Your task to perform on an android device: turn pop-ups on in chrome Image 0: 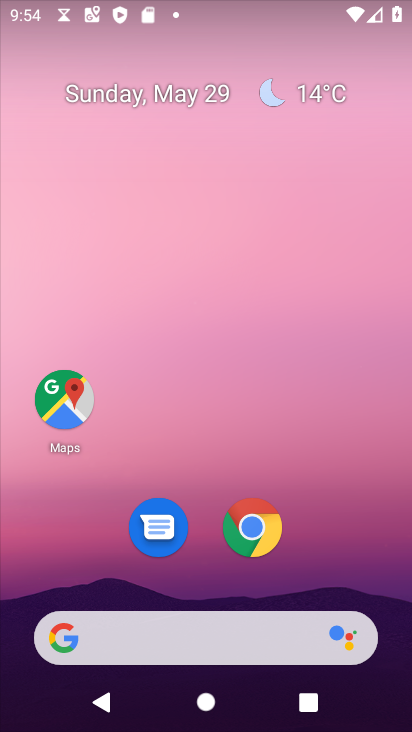
Step 0: press home button
Your task to perform on an android device: turn pop-ups on in chrome Image 1: 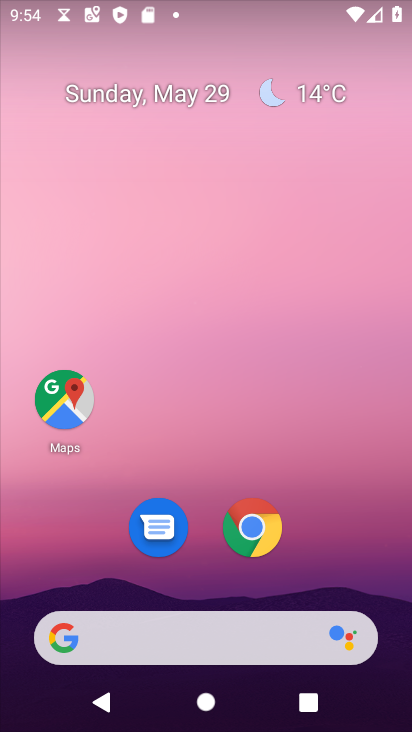
Step 1: click (257, 539)
Your task to perform on an android device: turn pop-ups on in chrome Image 2: 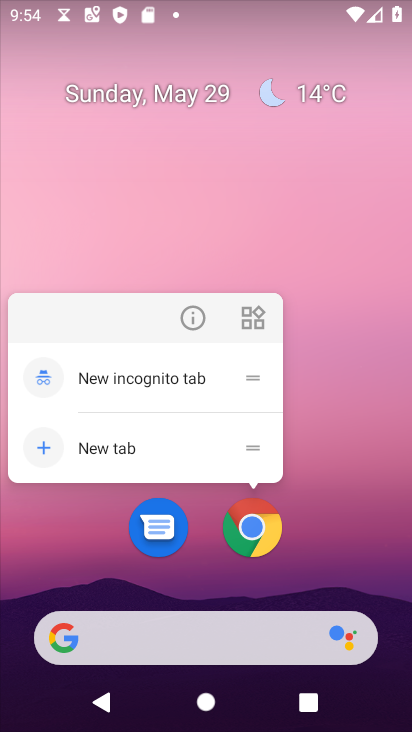
Step 2: click (258, 528)
Your task to perform on an android device: turn pop-ups on in chrome Image 3: 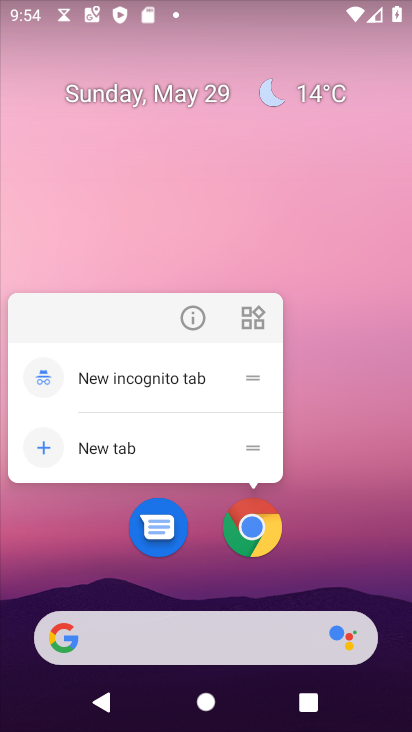
Step 3: click (254, 535)
Your task to perform on an android device: turn pop-ups on in chrome Image 4: 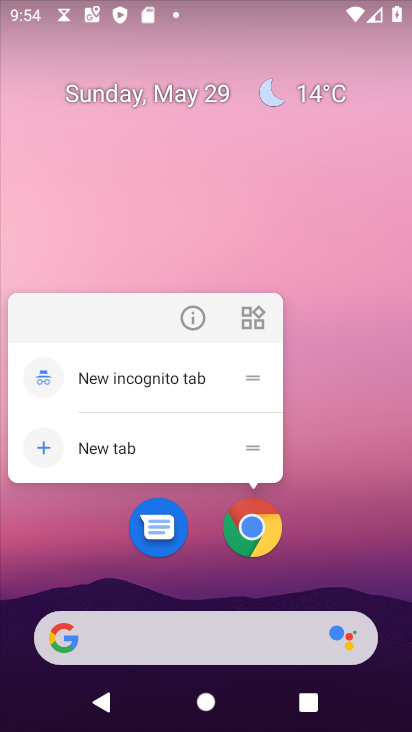
Step 4: click (254, 535)
Your task to perform on an android device: turn pop-ups on in chrome Image 5: 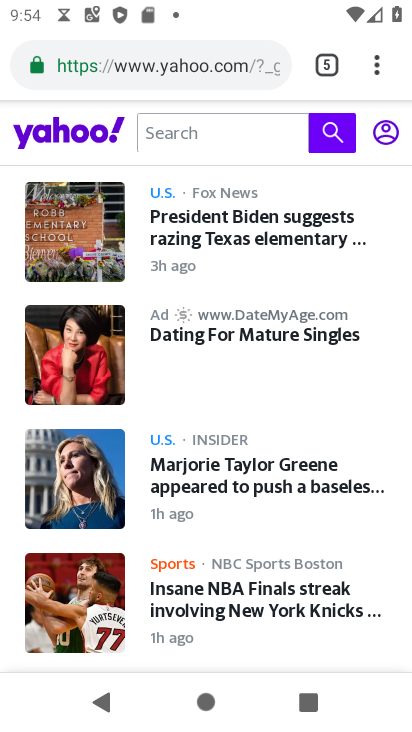
Step 5: drag from (373, 66) to (184, 582)
Your task to perform on an android device: turn pop-ups on in chrome Image 6: 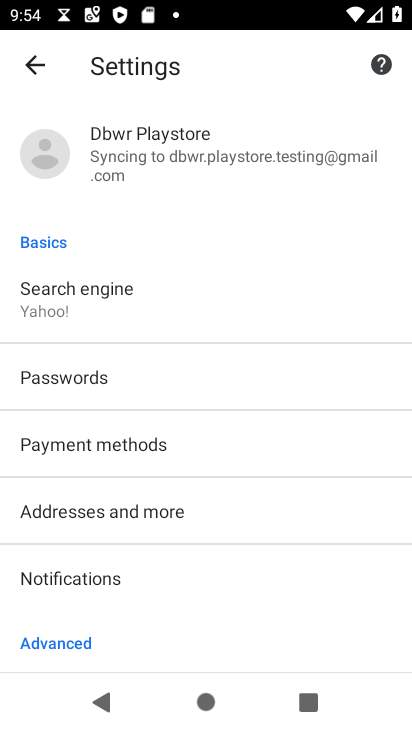
Step 6: drag from (171, 591) to (271, 238)
Your task to perform on an android device: turn pop-ups on in chrome Image 7: 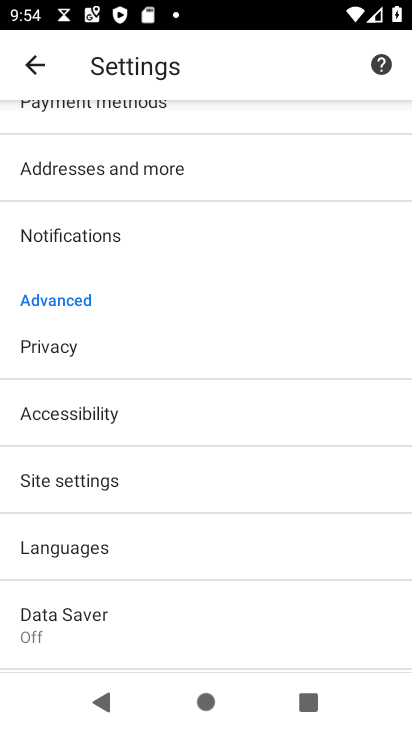
Step 7: click (87, 482)
Your task to perform on an android device: turn pop-ups on in chrome Image 8: 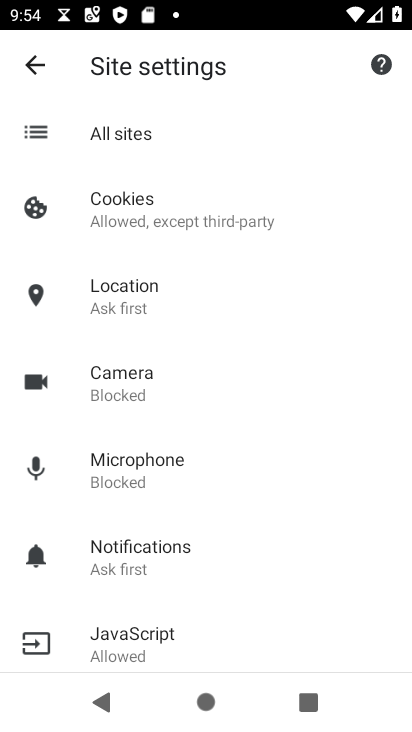
Step 8: drag from (178, 597) to (186, 253)
Your task to perform on an android device: turn pop-ups on in chrome Image 9: 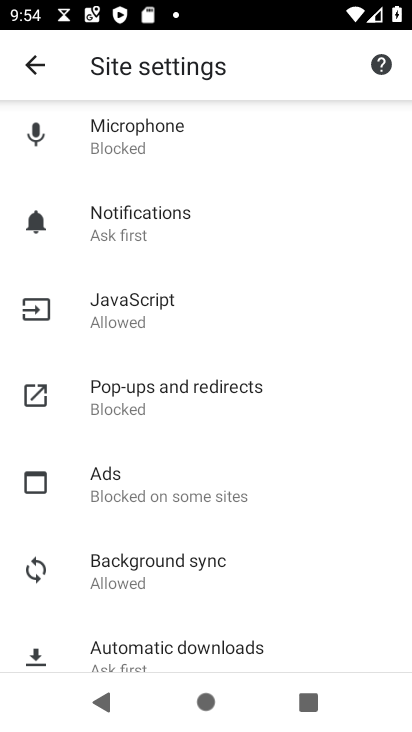
Step 9: click (167, 406)
Your task to perform on an android device: turn pop-ups on in chrome Image 10: 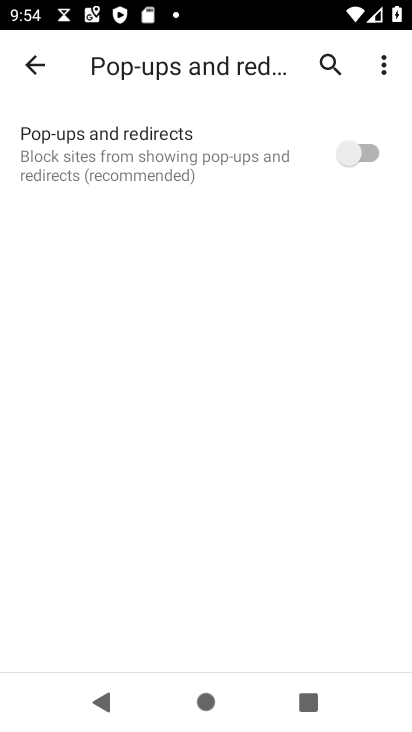
Step 10: click (364, 150)
Your task to perform on an android device: turn pop-ups on in chrome Image 11: 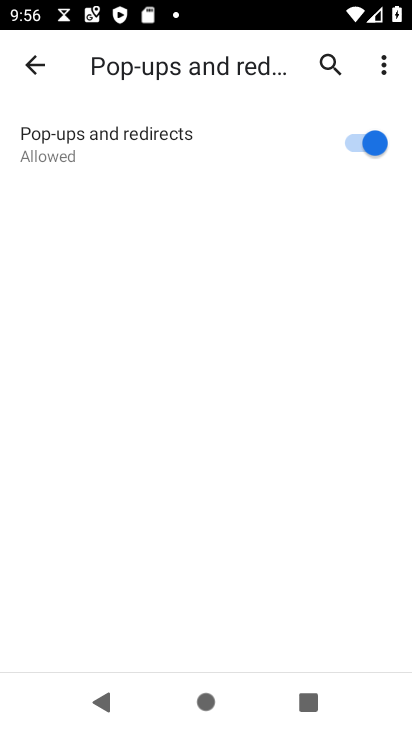
Step 11: task complete